Your task to perform on an android device: Is it going to rain tomorrow? Image 0: 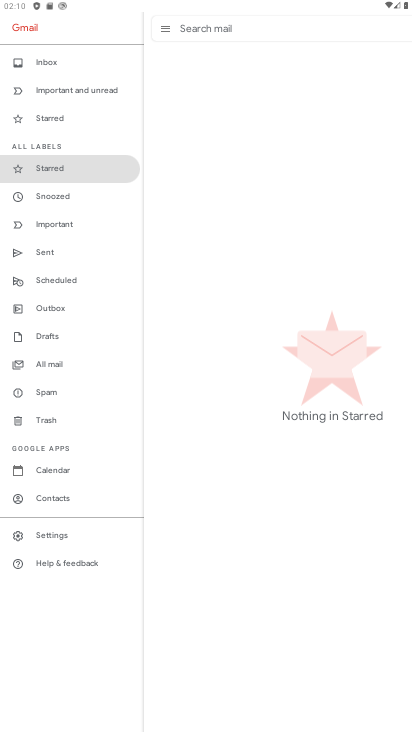
Step 0: press home button
Your task to perform on an android device: Is it going to rain tomorrow? Image 1: 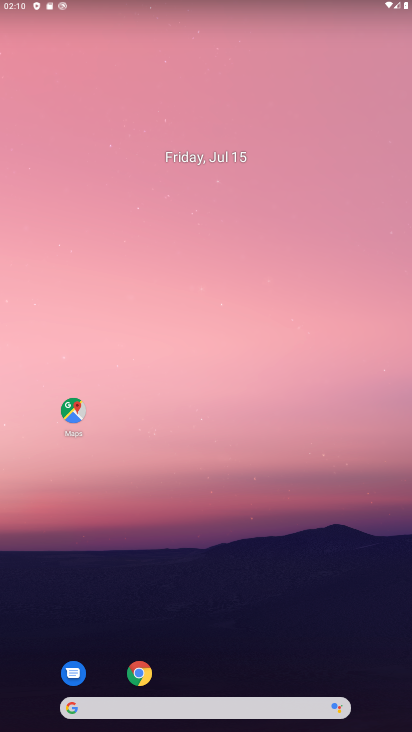
Step 1: drag from (195, 548) to (215, 33)
Your task to perform on an android device: Is it going to rain tomorrow? Image 2: 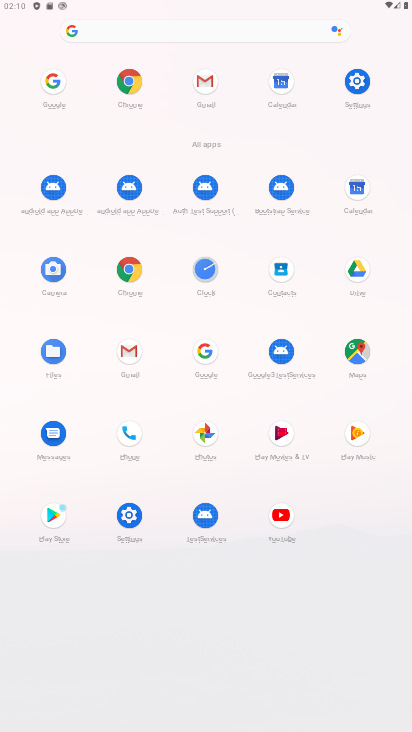
Step 2: click (212, 354)
Your task to perform on an android device: Is it going to rain tomorrow? Image 3: 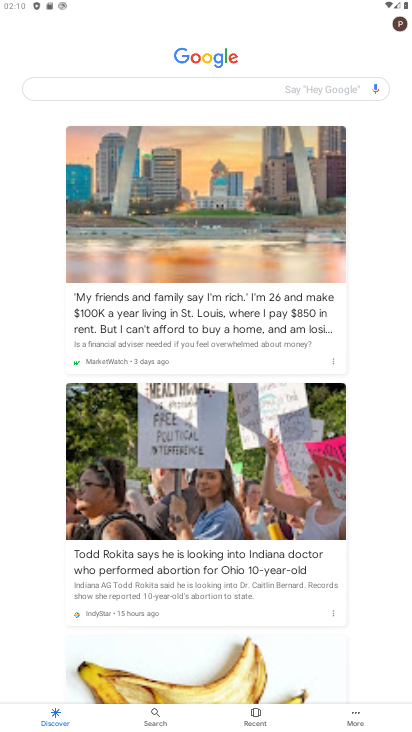
Step 3: click (294, 97)
Your task to perform on an android device: Is it going to rain tomorrow? Image 4: 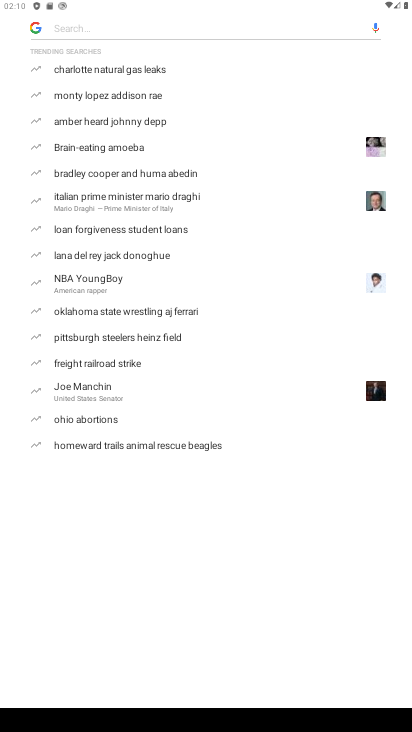
Step 4: type "wether"
Your task to perform on an android device: Is it going to rain tomorrow? Image 5: 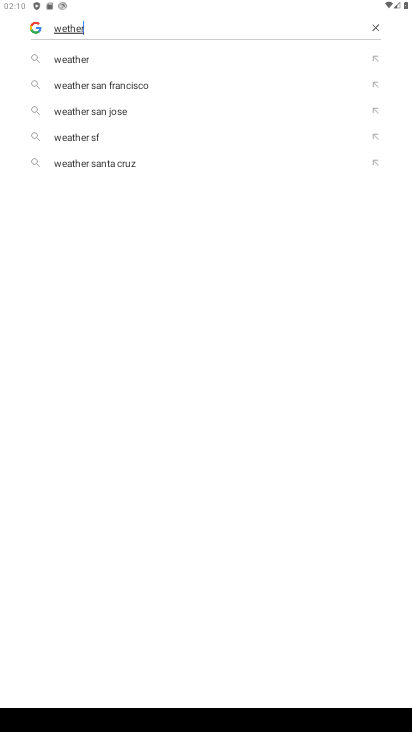
Step 5: click (65, 59)
Your task to perform on an android device: Is it going to rain tomorrow? Image 6: 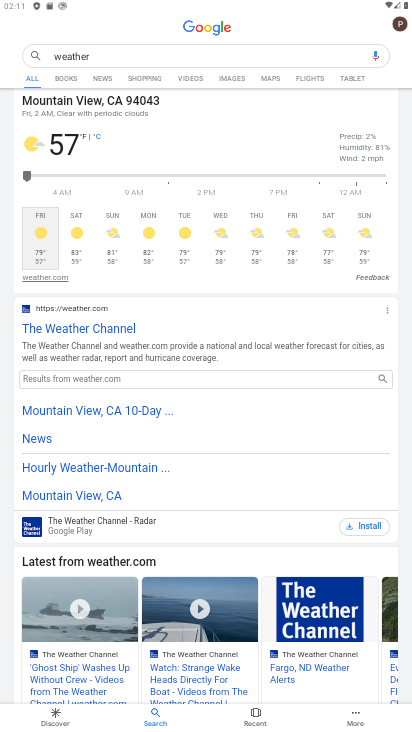
Step 6: task complete